Your task to perform on an android device: Open the phone app and click the voicemail tab. Image 0: 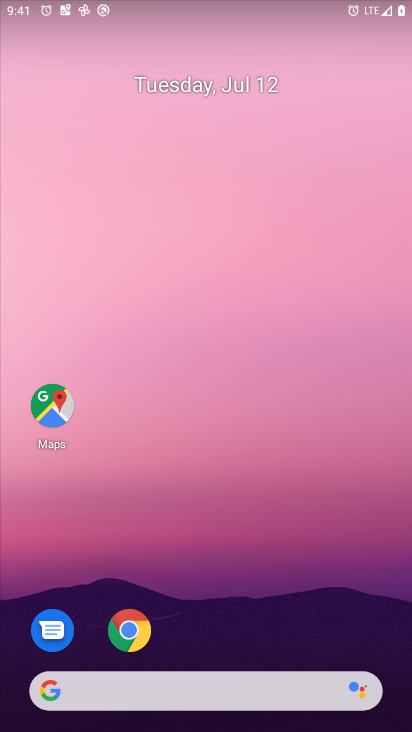
Step 0: press home button
Your task to perform on an android device: Open the phone app and click the voicemail tab. Image 1: 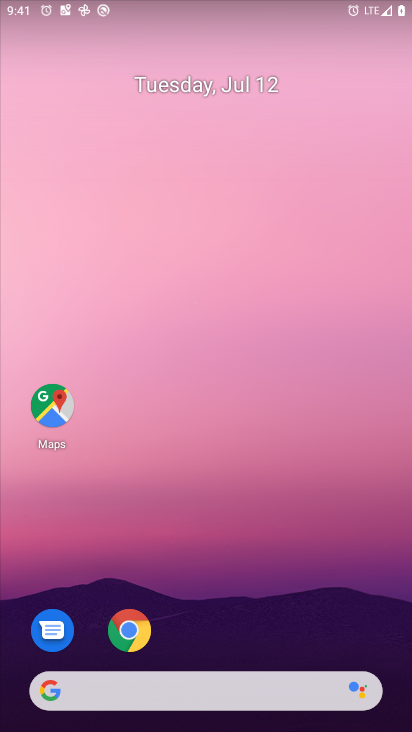
Step 1: drag from (291, 609) to (298, 119)
Your task to perform on an android device: Open the phone app and click the voicemail tab. Image 2: 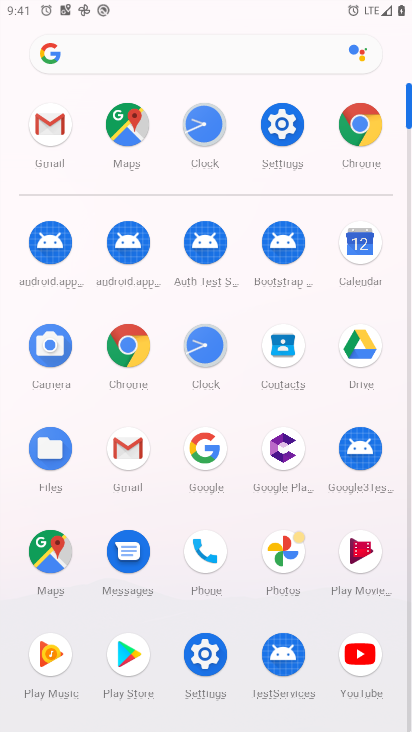
Step 2: click (207, 557)
Your task to perform on an android device: Open the phone app and click the voicemail tab. Image 3: 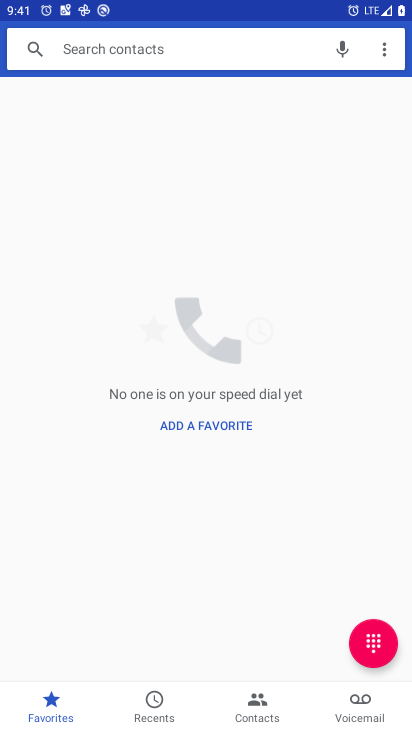
Step 3: click (361, 705)
Your task to perform on an android device: Open the phone app and click the voicemail tab. Image 4: 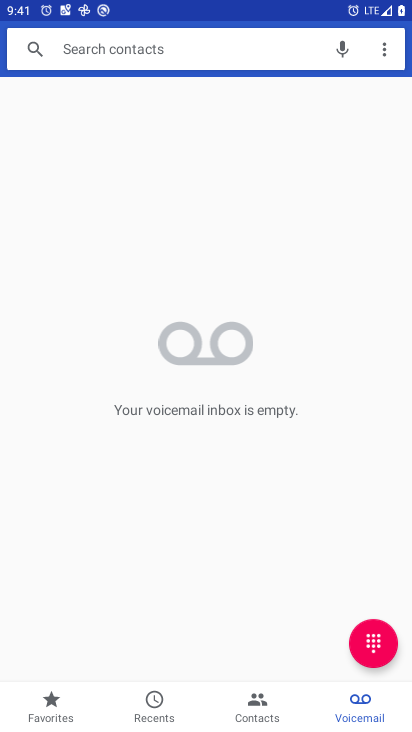
Step 4: task complete